Your task to perform on an android device: turn pop-ups on in chrome Image 0: 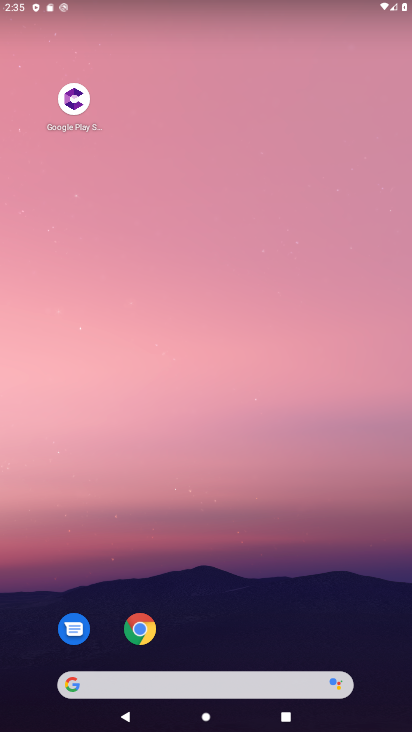
Step 0: click (148, 637)
Your task to perform on an android device: turn pop-ups on in chrome Image 1: 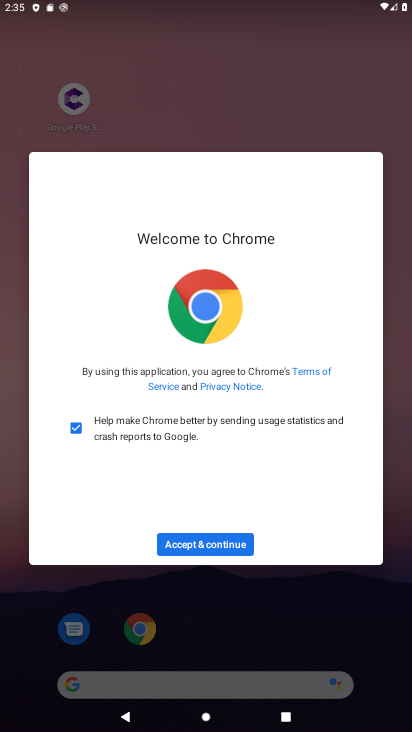
Step 1: click (200, 548)
Your task to perform on an android device: turn pop-ups on in chrome Image 2: 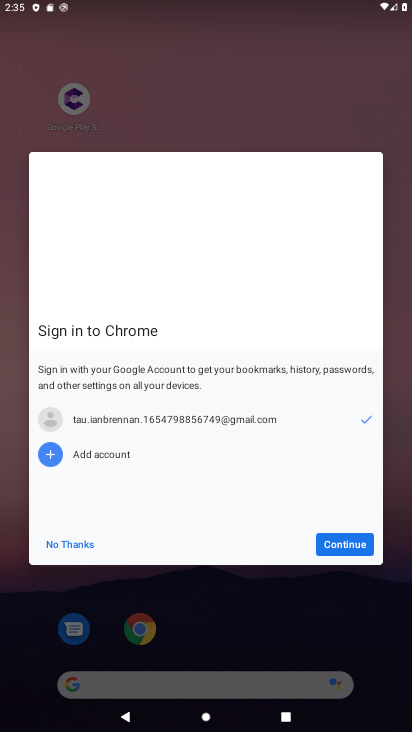
Step 2: click (369, 546)
Your task to perform on an android device: turn pop-ups on in chrome Image 3: 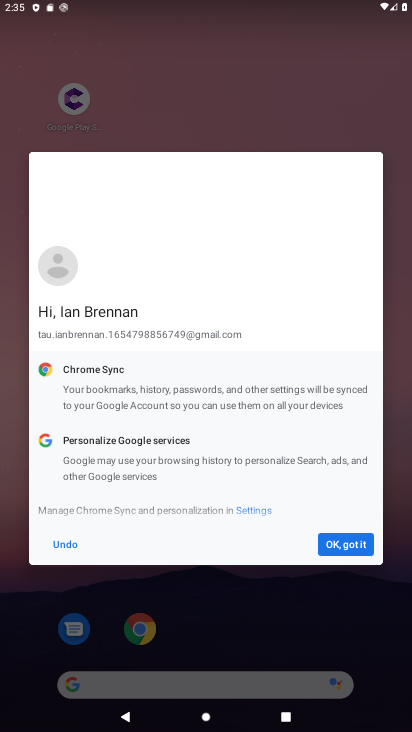
Step 3: click (369, 546)
Your task to perform on an android device: turn pop-ups on in chrome Image 4: 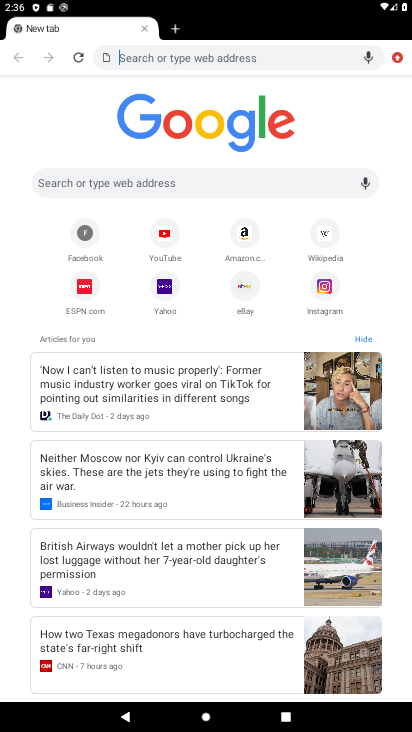
Step 4: click (398, 57)
Your task to perform on an android device: turn pop-ups on in chrome Image 5: 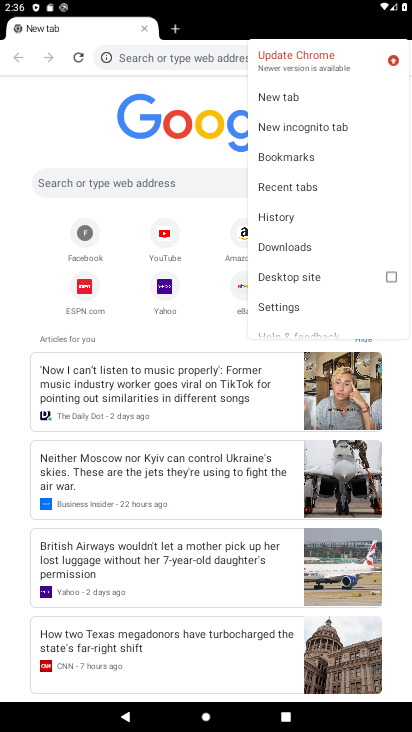
Step 5: click (291, 306)
Your task to perform on an android device: turn pop-ups on in chrome Image 6: 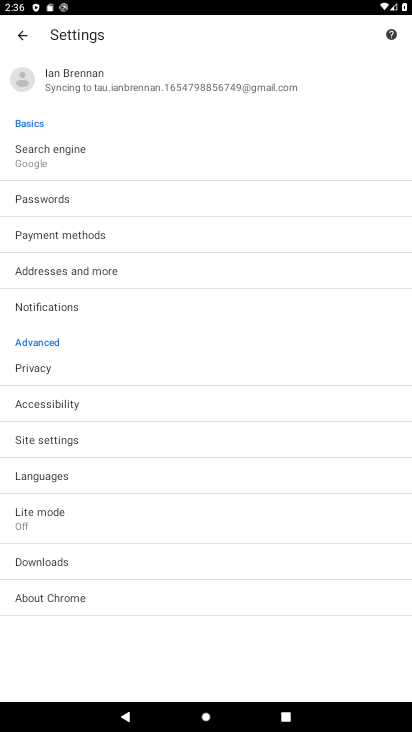
Step 6: click (34, 441)
Your task to perform on an android device: turn pop-ups on in chrome Image 7: 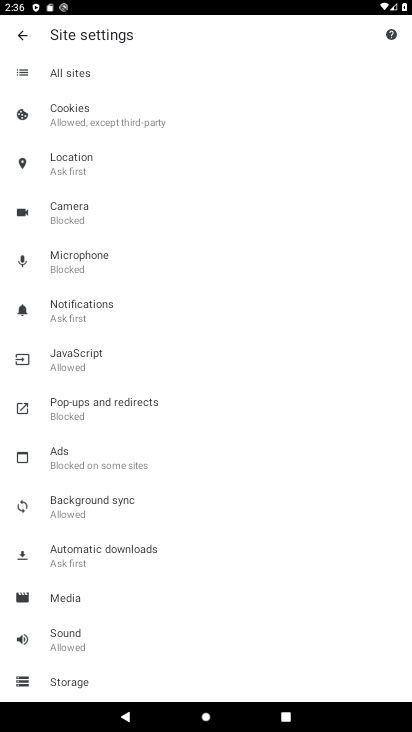
Step 7: click (122, 408)
Your task to perform on an android device: turn pop-ups on in chrome Image 8: 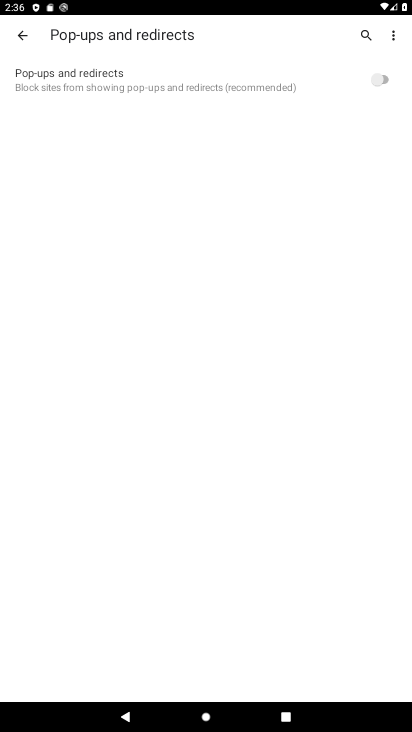
Step 8: click (384, 77)
Your task to perform on an android device: turn pop-ups on in chrome Image 9: 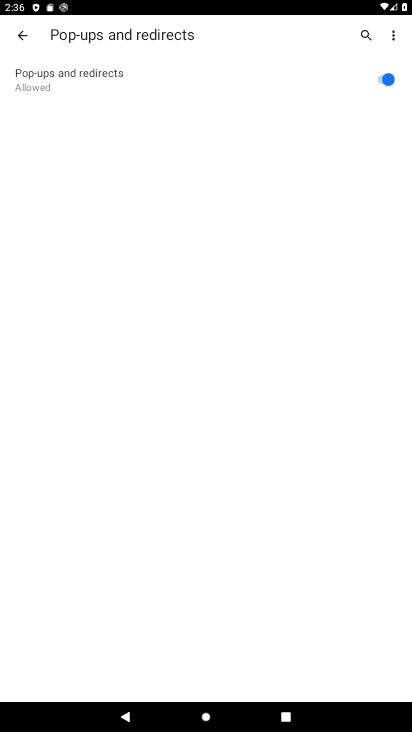
Step 9: task complete